Your task to perform on an android device: turn on airplane mode Image 0: 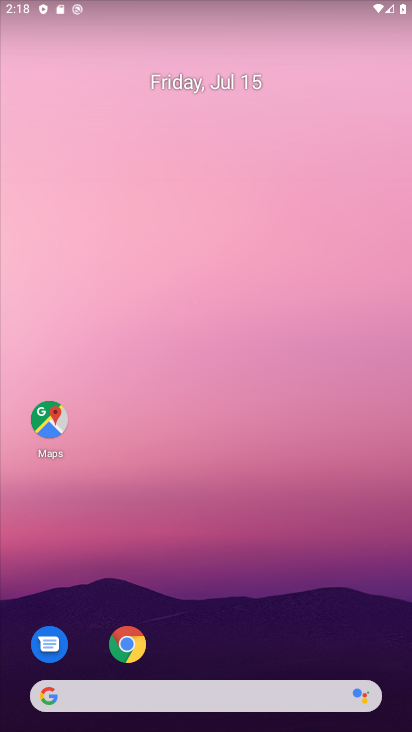
Step 0: drag from (319, 680) to (336, 2)
Your task to perform on an android device: turn on airplane mode Image 1: 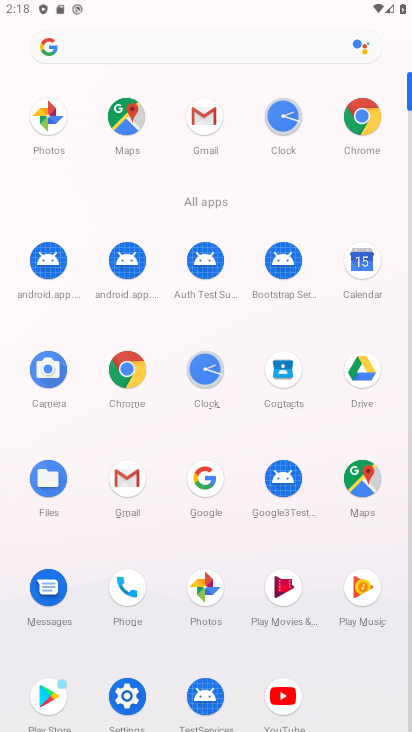
Step 1: click (122, 693)
Your task to perform on an android device: turn on airplane mode Image 2: 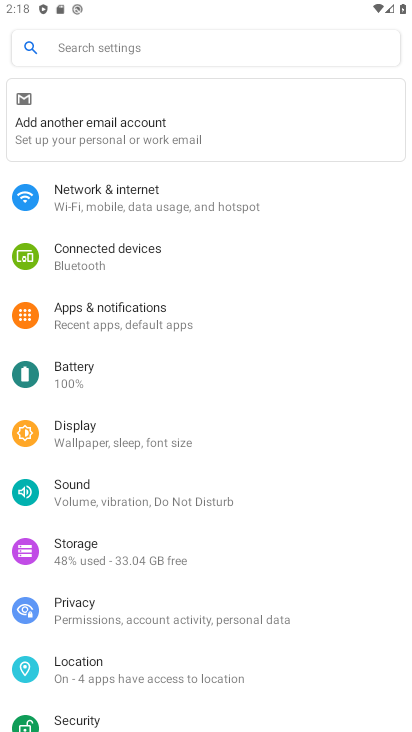
Step 2: click (176, 196)
Your task to perform on an android device: turn on airplane mode Image 3: 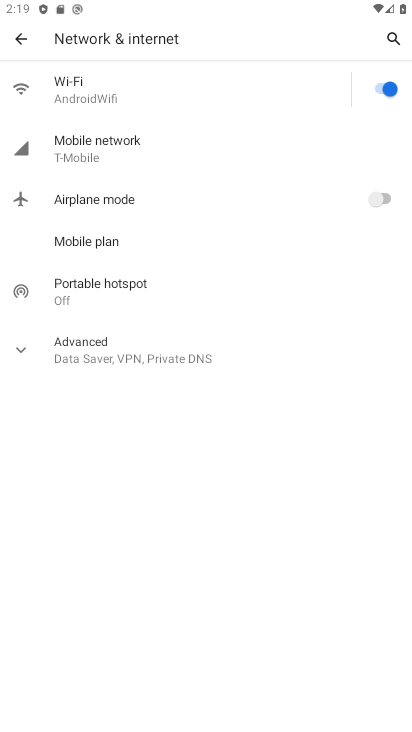
Step 3: click (376, 197)
Your task to perform on an android device: turn on airplane mode Image 4: 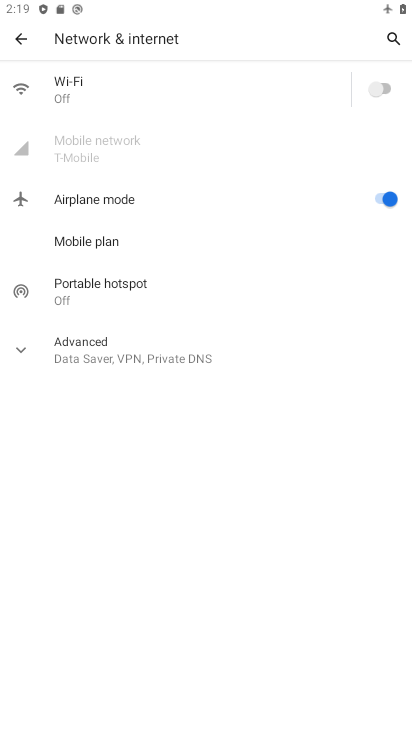
Step 4: task complete